Your task to perform on an android device: Open Amazon Image 0: 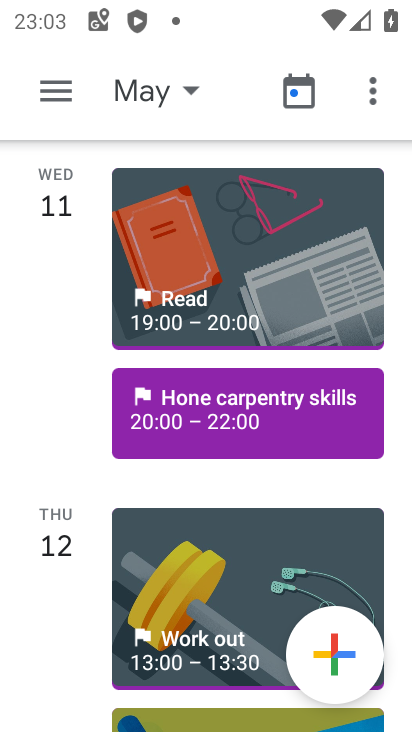
Step 0: press home button
Your task to perform on an android device: Open Amazon Image 1: 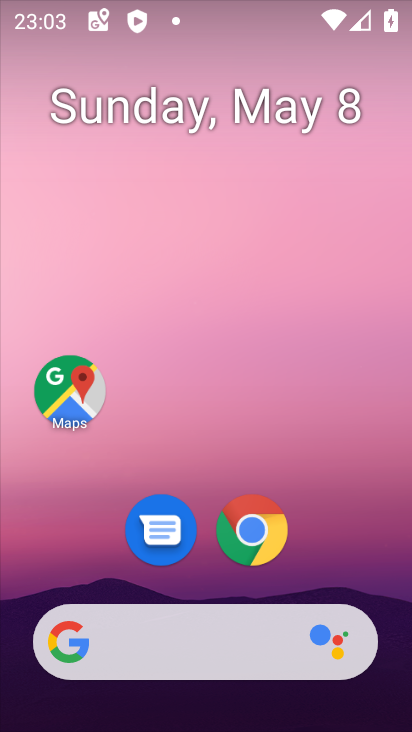
Step 1: drag from (330, 530) to (298, 133)
Your task to perform on an android device: Open Amazon Image 2: 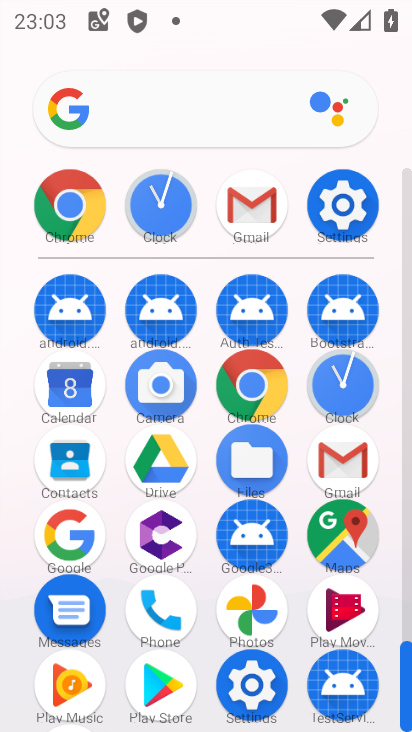
Step 2: click (212, 273)
Your task to perform on an android device: Open Amazon Image 3: 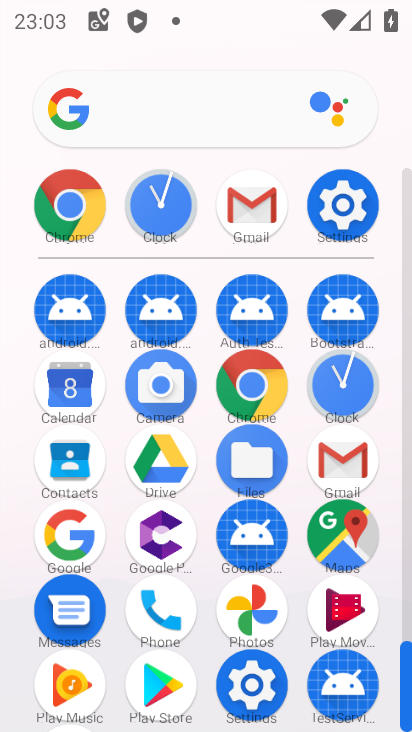
Step 3: drag from (195, 638) to (193, 216)
Your task to perform on an android device: Open Amazon Image 4: 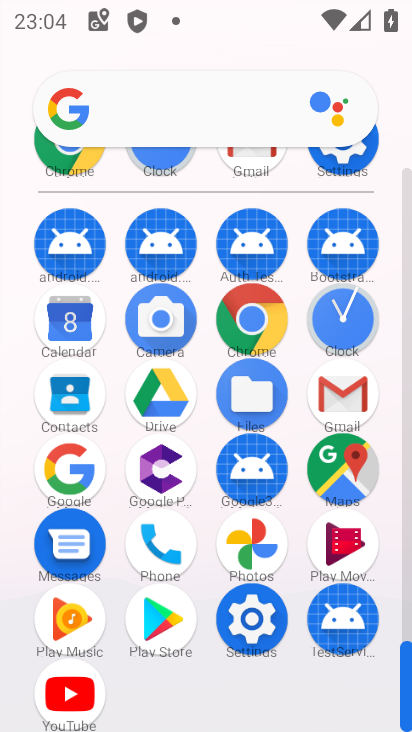
Step 4: click (251, 290)
Your task to perform on an android device: Open Amazon Image 5: 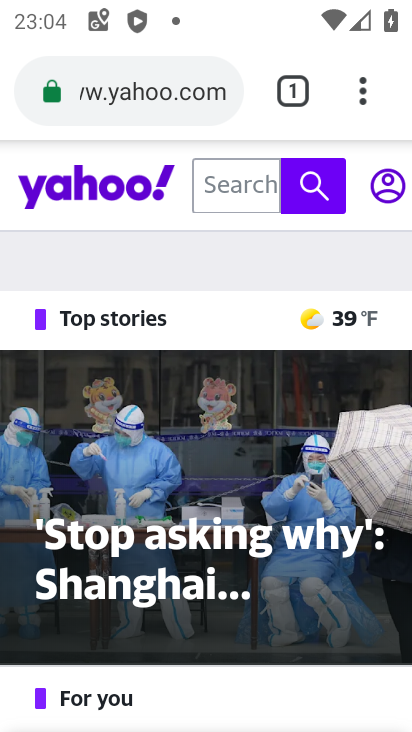
Step 5: click (149, 91)
Your task to perform on an android device: Open Amazon Image 6: 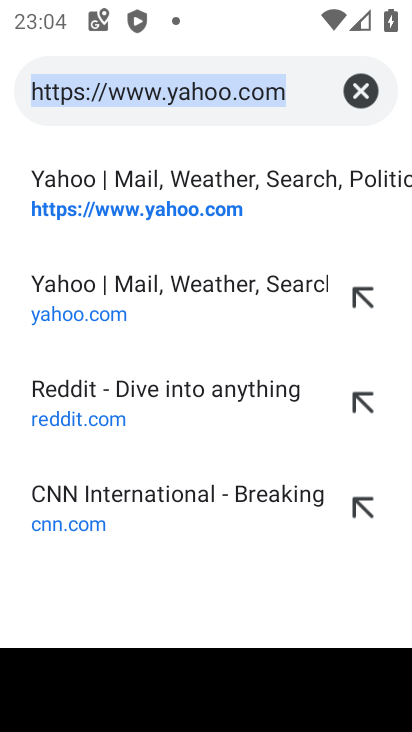
Step 6: click (356, 85)
Your task to perform on an android device: Open Amazon Image 7: 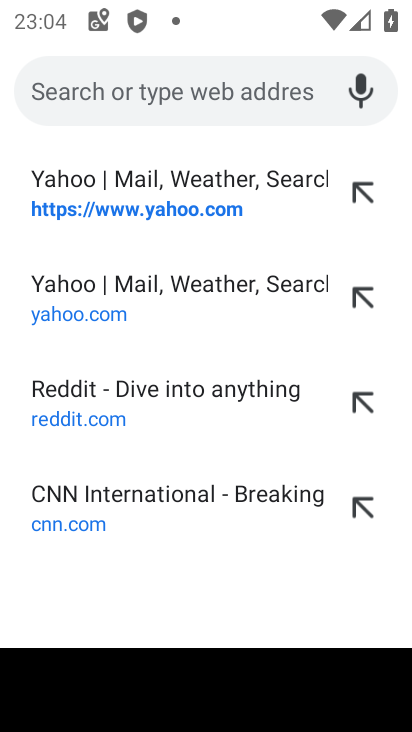
Step 7: type "amazon"
Your task to perform on an android device: Open Amazon Image 8: 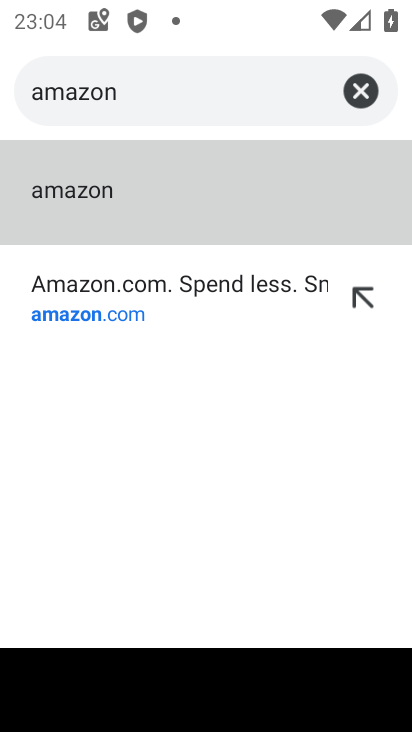
Step 8: click (36, 300)
Your task to perform on an android device: Open Amazon Image 9: 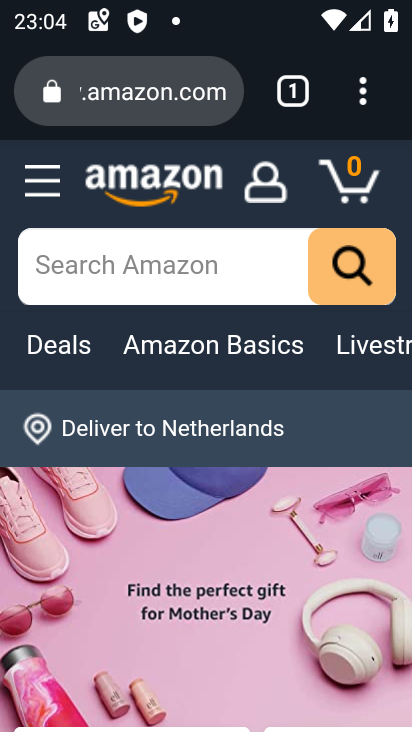
Step 9: task complete